Your task to perform on an android device: change keyboard looks Image 0: 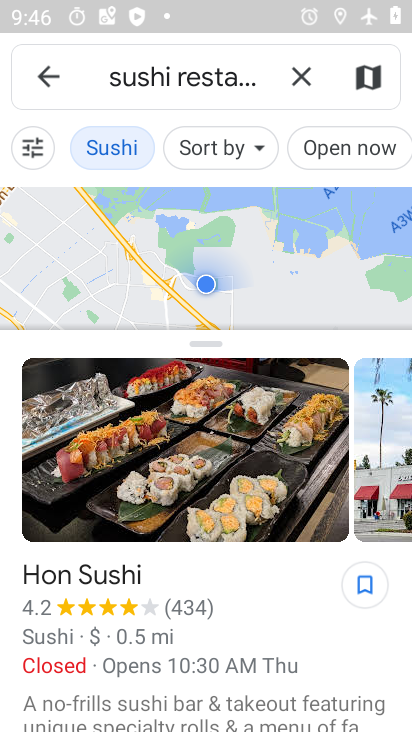
Step 0: press home button
Your task to perform on an android device: change keyboard looks Image 1: 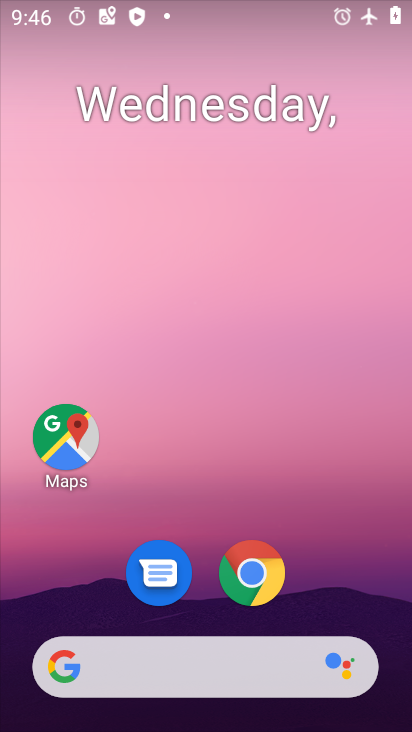
Step 1: drag from (308, 643) to (309, 559)
Your task to perform on an android device: change keyboard looks Image 2: 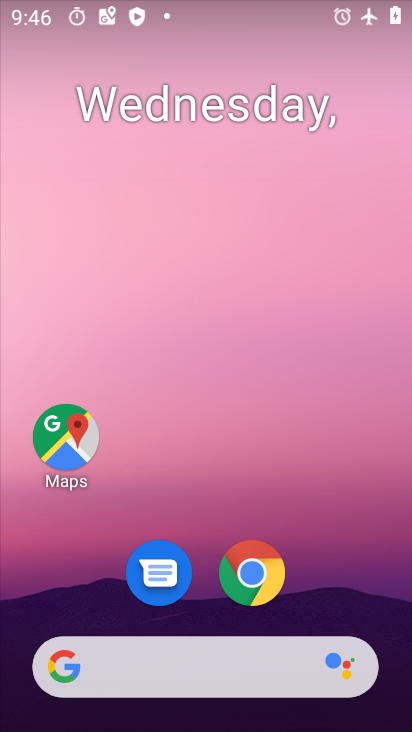
Step 2: drag from (301, 673) to (283, 366)
Your task to perform on an android device: change keyboard looks Image 3: 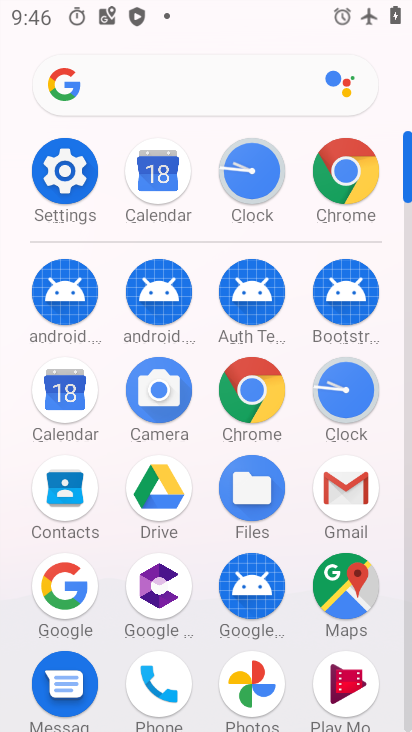
Step 3: click (63, 207)
Your task to perform on an android device: change keyboard looks Image 4: 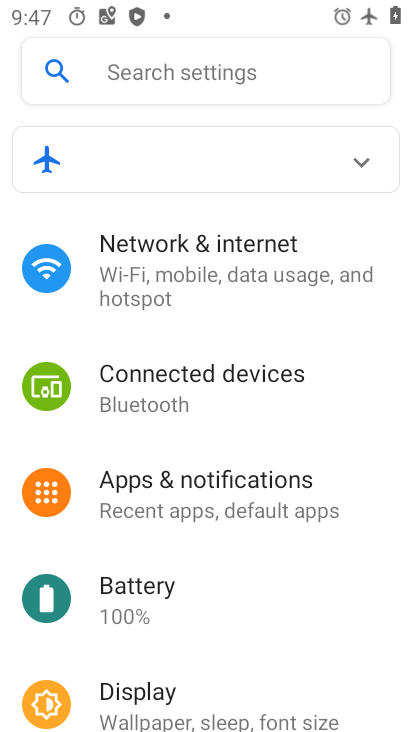
Step 4: drag from (149, 635) to (207, 286)
Your task to perform on an android device: change keyboard looks Image 5: 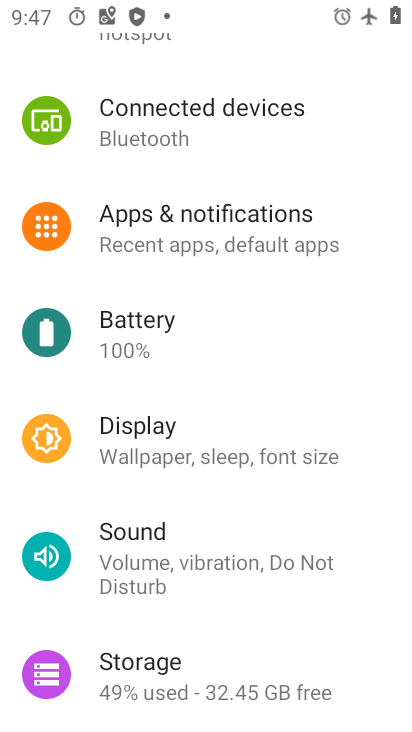
Step 5: drag from (269, 591) to (289, 324)
Your task to perform on an android device: change keyboard looks Image 6: 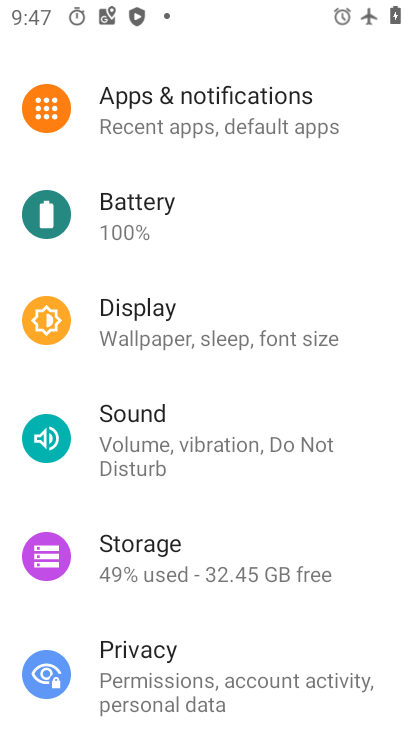
Step 6: drag from (264, 475) to (328, 60)
Your task to perform on an android device: change keyboard looks Image 7: 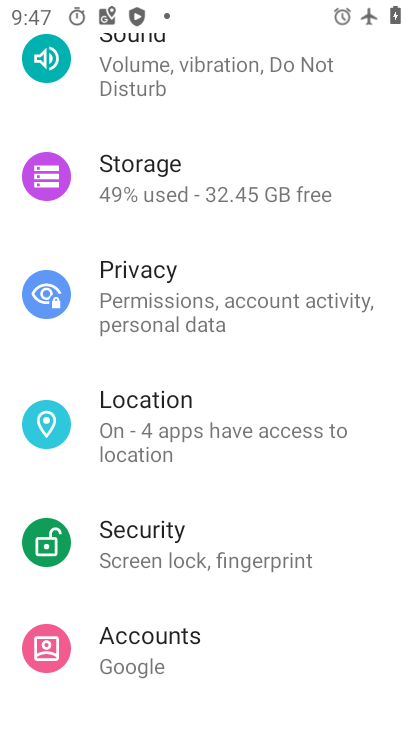
Step 7: drag from (233, 491) to (298, 143)
Your task to perform on an android device: change keyboard looks Image 8: 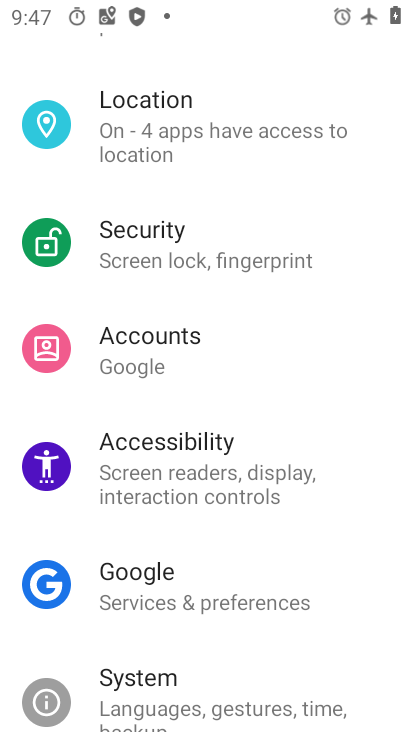
Step 8: click (214, 710)
Your task to perform on an android device: change keyboard looks Image 9: 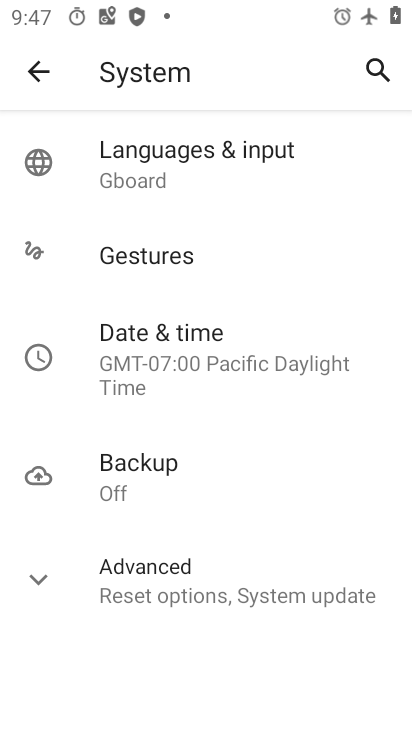
Step 9: click (235, 212)
Your task to perform on an android device: change keyboard looks Image 10: 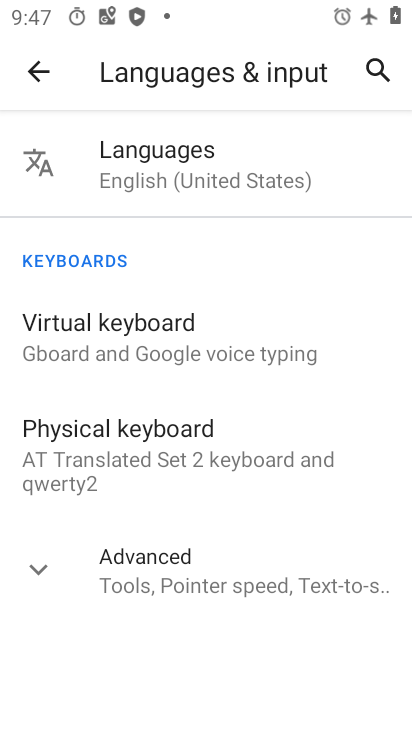
Step 10: click (219, 362)
Your task to perform on an android device: change keyboard looks Image 11: 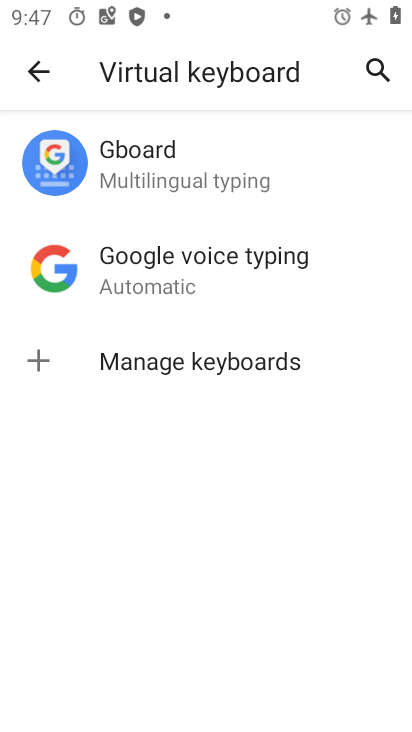
Step 11: click (251, 184)
Your task to perform on an android device: change keyboard looks Image 12: 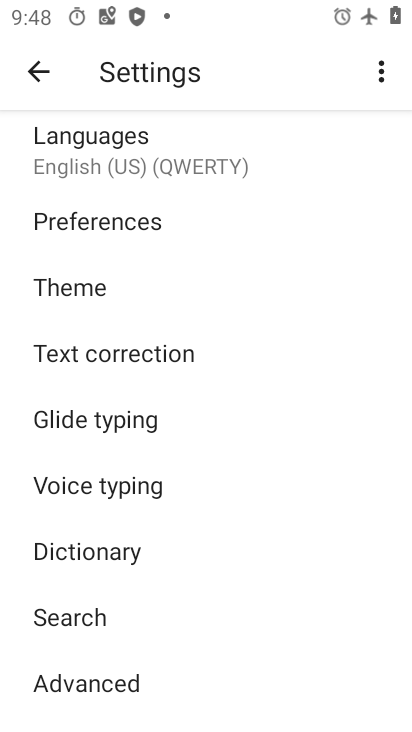
Step 12: click (105, 278)
Your task to perform on an android device: change keyboard looks Image 13: 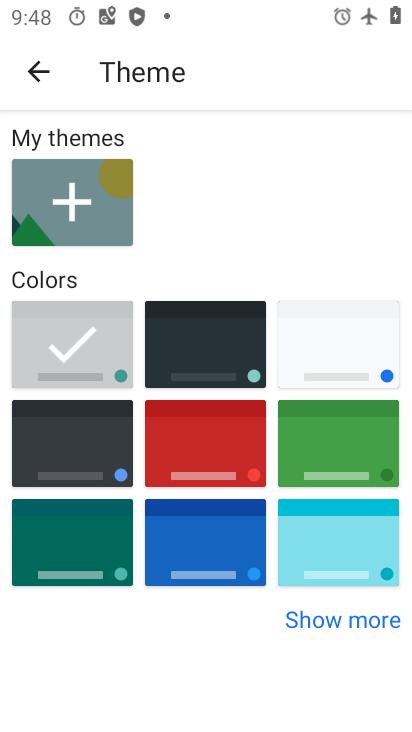
Step 13: click (217, 352)
Your task to perform on an android device: change keyboard looks Image 14: 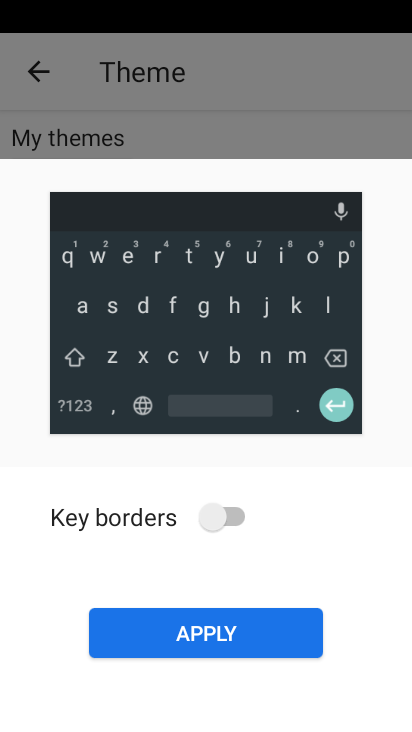
Step 14: click (227, 634)
Your task to perform on an android device: change keyboard looks Image 15: 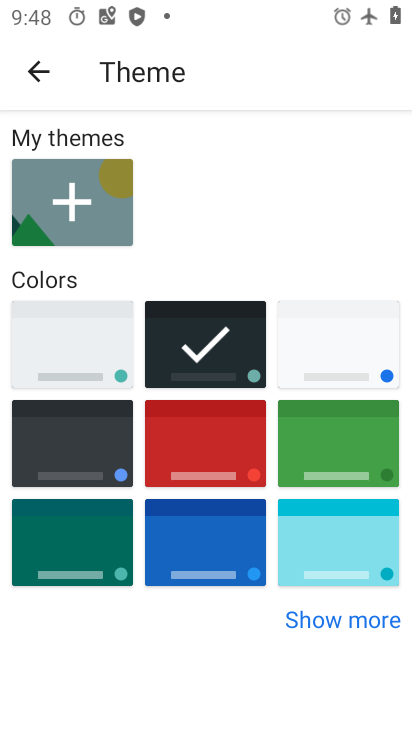
Step 15: task complete